Your task to perform on an android device: change notification settings in the gmail app Image 0: 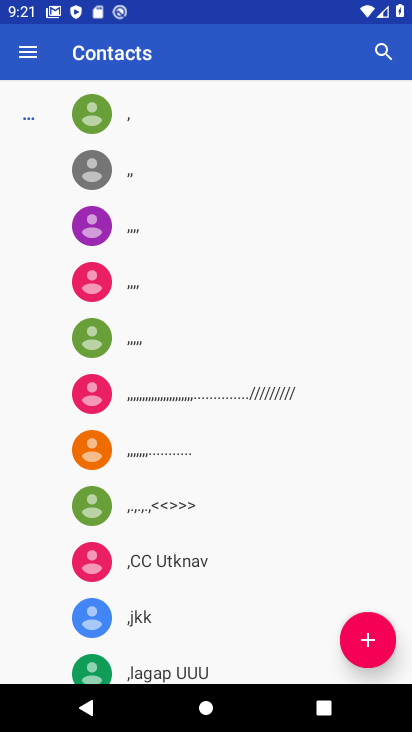
Step 0: press home button
Your task to perform on an android device: change notification settings in the gmail app Image 1: 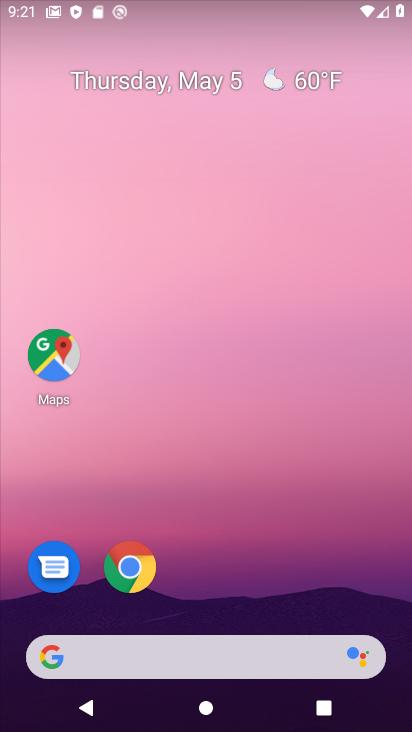
Step 1: drag from (229, 587) to (230, 92)
Your task to perform on an android device: change notification settings in the gmail app Image 2: 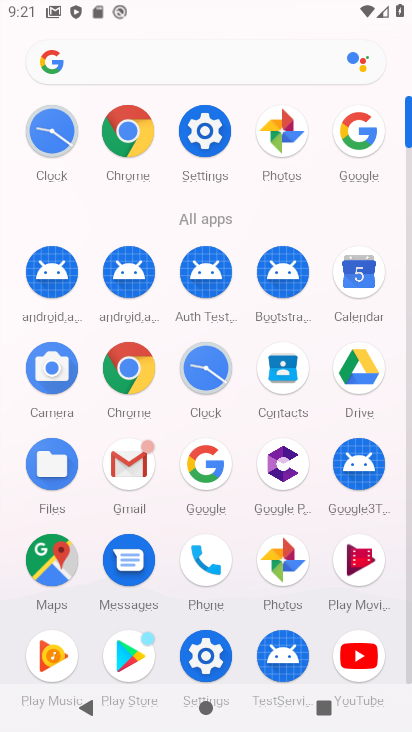
Step 2: click (142, 461)
Your task to perform on an android device: change notification settings in the gmail app Image 3: 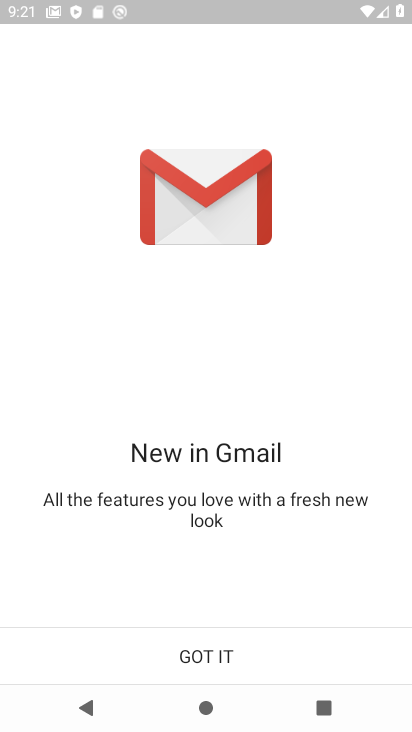
Step 3: click (239, 641)
Your task to perform on an android device: change notification settings in the gmail app Image 4: 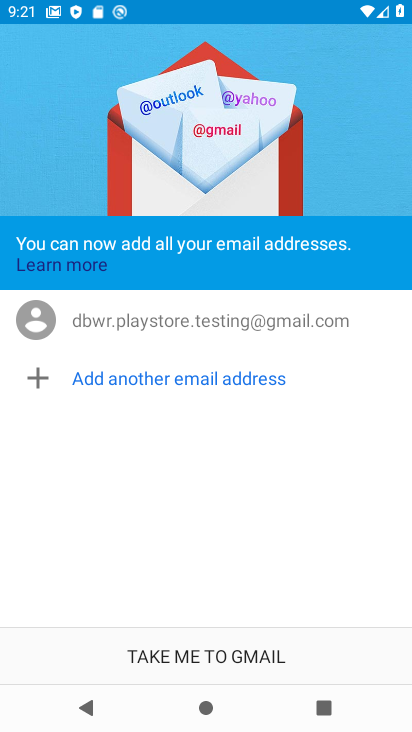
Step 4: click (244, 640)
Your task to perform on an android device: change notification settings in the gmail app Image 5: 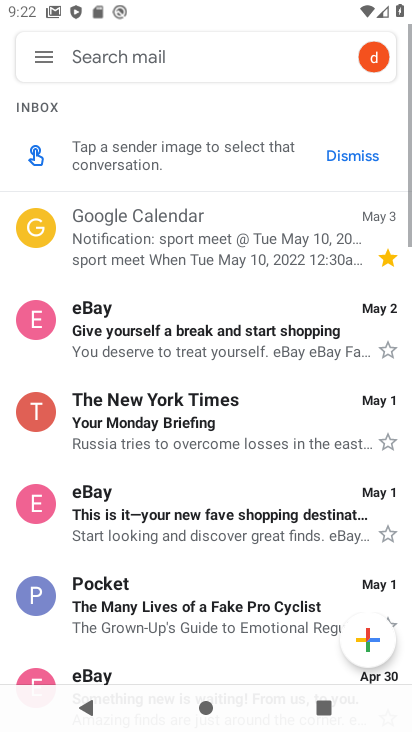
Step 5: click (53, 51)
Your task to perform on an android device: change notification settings in the gmail app Image 6: 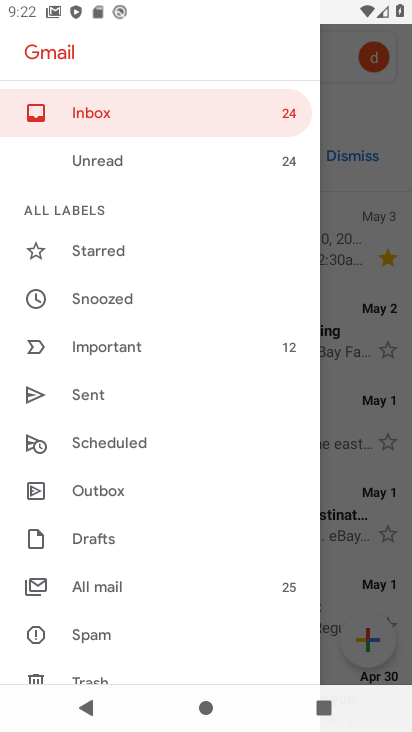
Step 6: drag from (147, 638) to (166, 348)
Your task to perform on an android device: change notification settings in the gmail app Image 7: 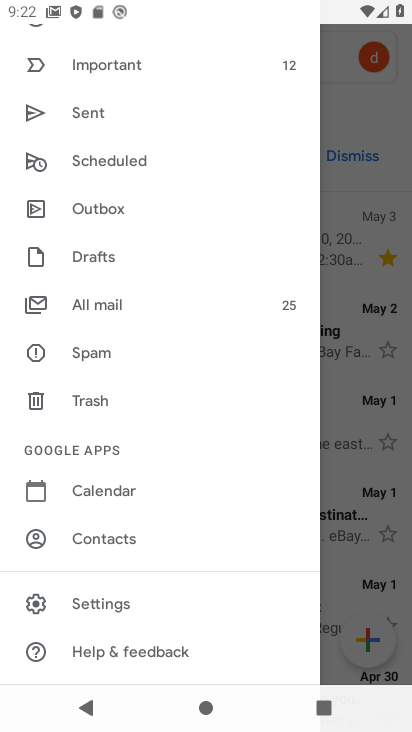
Step 7: click (133, 597)
Your task to perform on an android device: change notification settings in the gmail app Image 8: 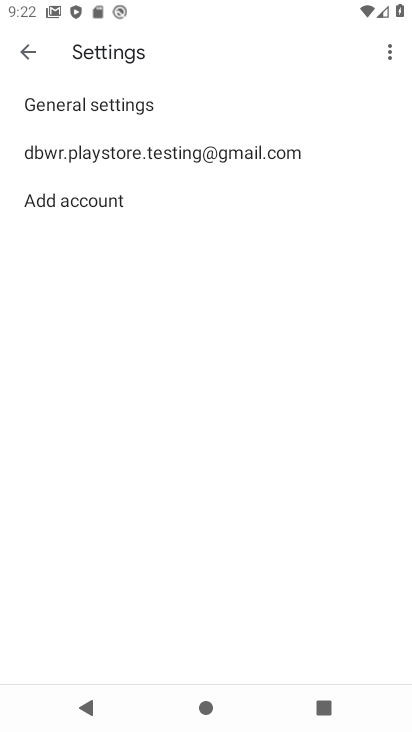
Step 8: click (116, 159)
Your task to perform on an android device: change notification settings in the gmail app Image 9: 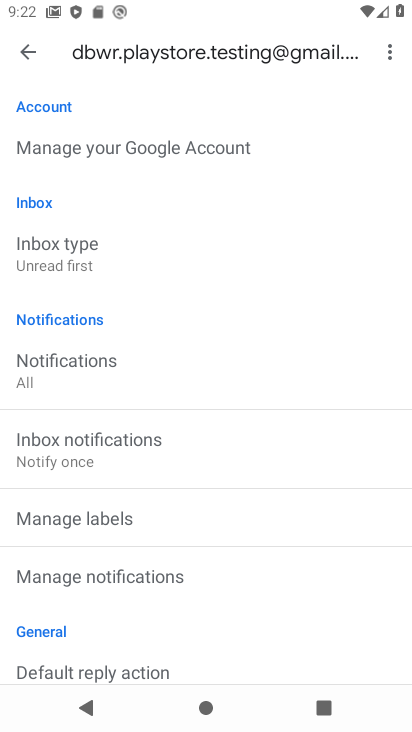
Step 9: click (147, 569)
Your task to perform on an android device: change notification settings in the gmail app Image 10: 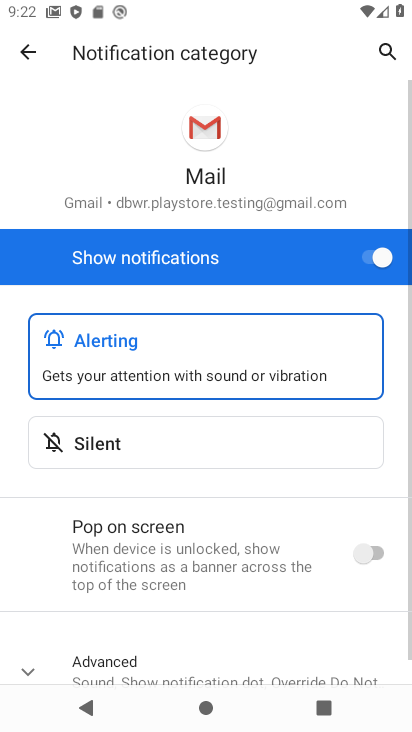
Step 10: click (359, 252)
Your task to perform on an android device: change notification settings in the gmail app Image 11: 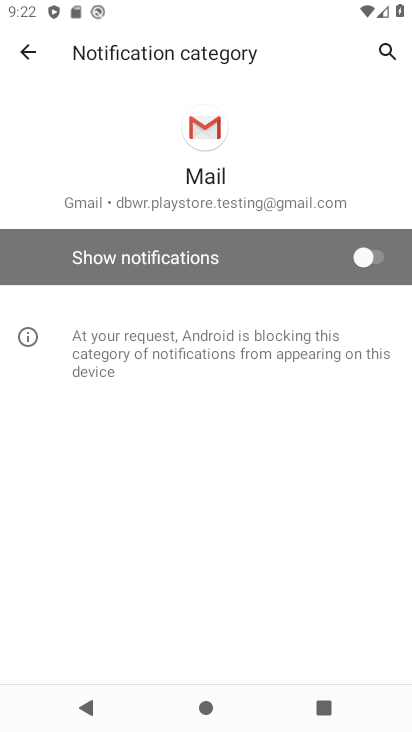
Step 11: task complete